Your task to perform on an android device: Open location settings Image 0: 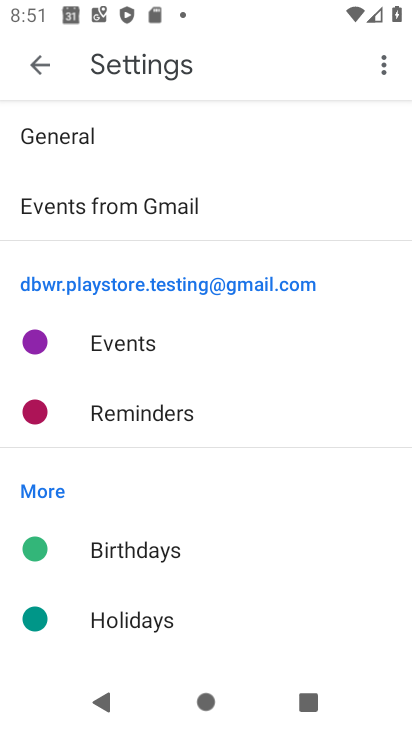
Step 0: press home button
Your task to perform on an android device: Open location settings Image 1: 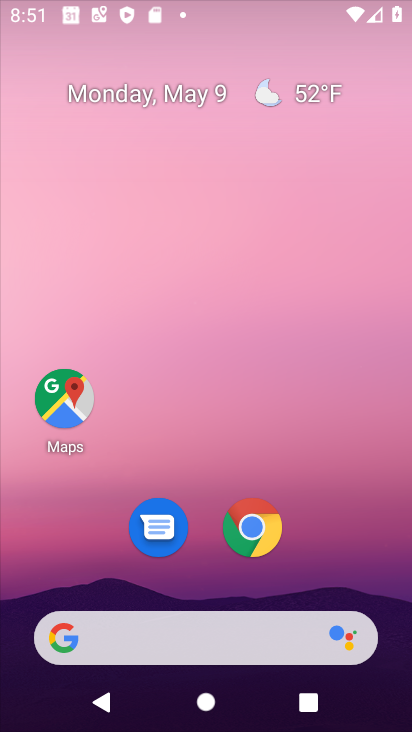
Step 1: drag from (213, 588) to (192, 19)
Your task to perform on an android device: Open location settings Image 2: 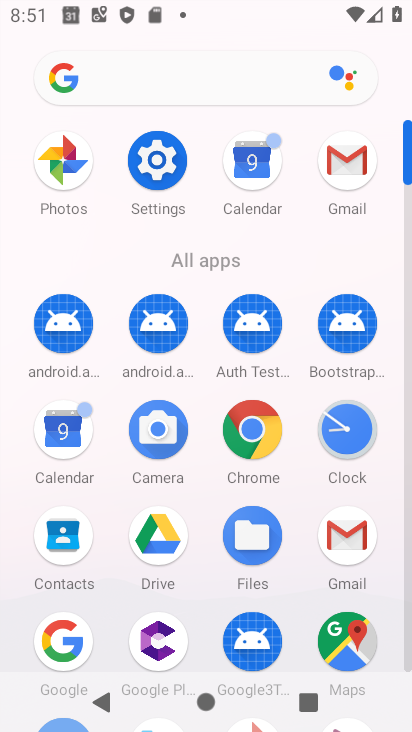
Step 2: click (165, 159)
Your task to perform on an android device: Open location settings Image 3: 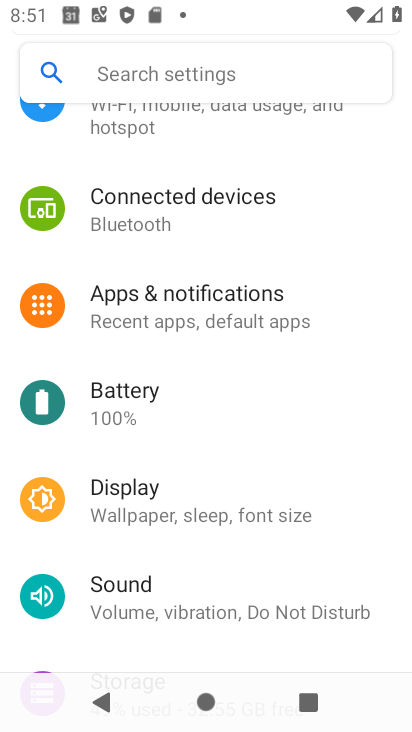
Step 3: drag from (257, 575) to (205, 81)
Your task to perform on an android device: Open location settings Image 4: 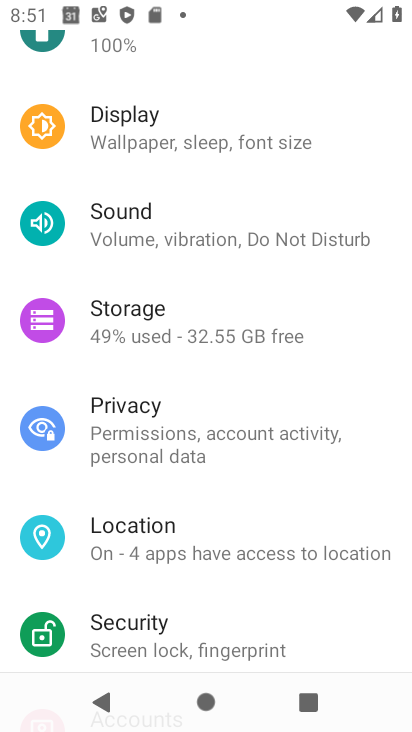
Step 4: click (144, 563)
Your task to perform on an android device: Open location settings Image 5: 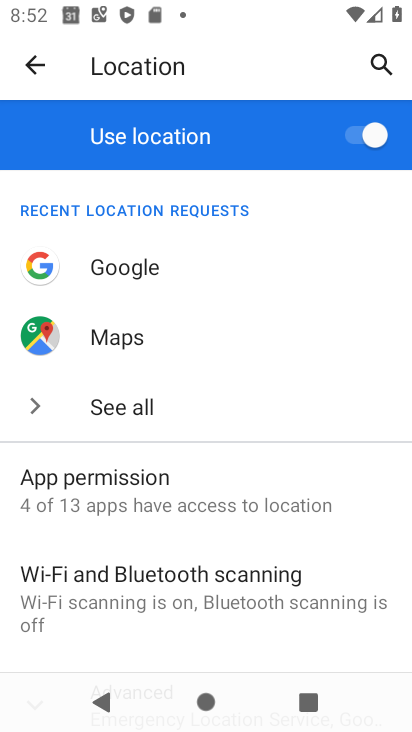
Step 5: task complete